Your task to perform on an android device: allow cookies in the chrome app Image 0: 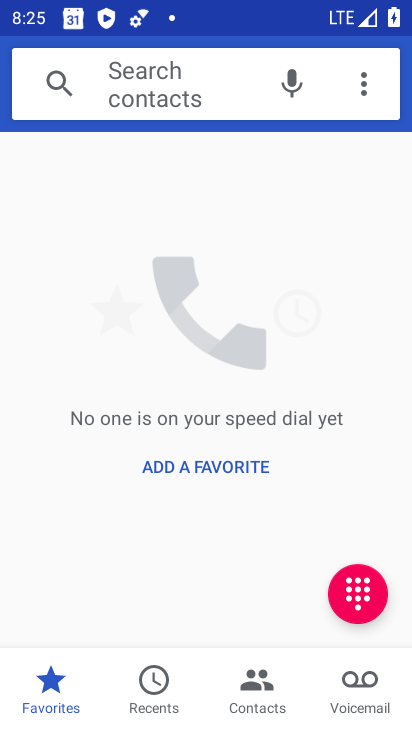
Step 0: press home button
Your task to perform on an android device: allow cookies in the chrome app Image 1: 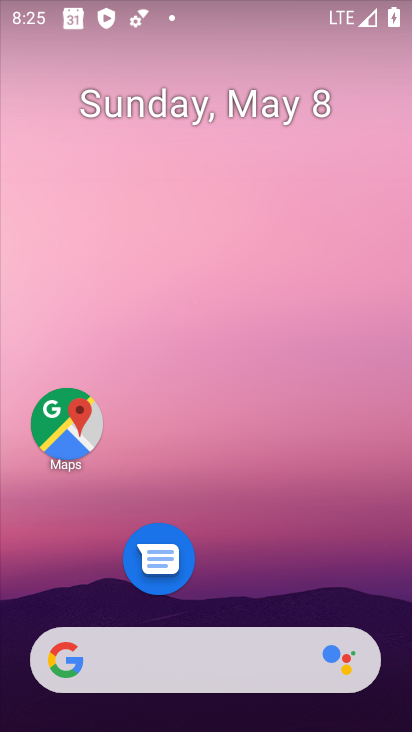
Step 1: drag from (260, 718) to (200, 131)
Your task to perform on an android device: allow cookies in the chrome app Image 2: 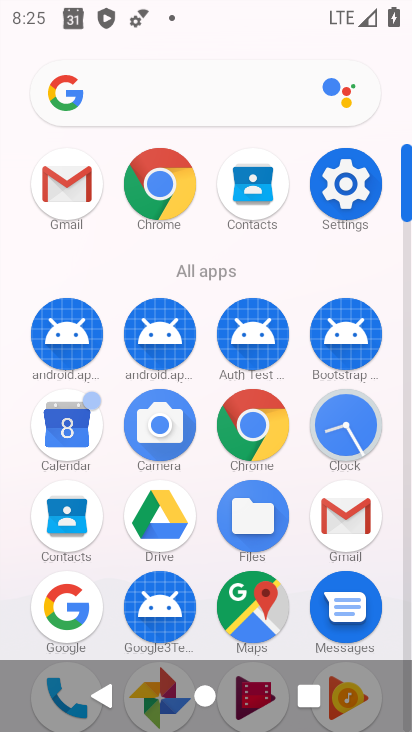
Step 2: click (263, 425)
Your task to perform on an android device: allow cookies in the chrome app Image 3: 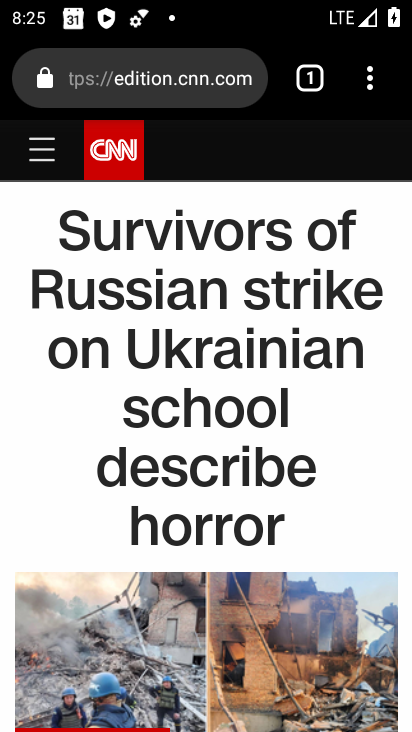
Step 3: drag from (367, 80) to (190, 624)
Your task to perform on an android device: allow cookies in the chrome app Image 4: 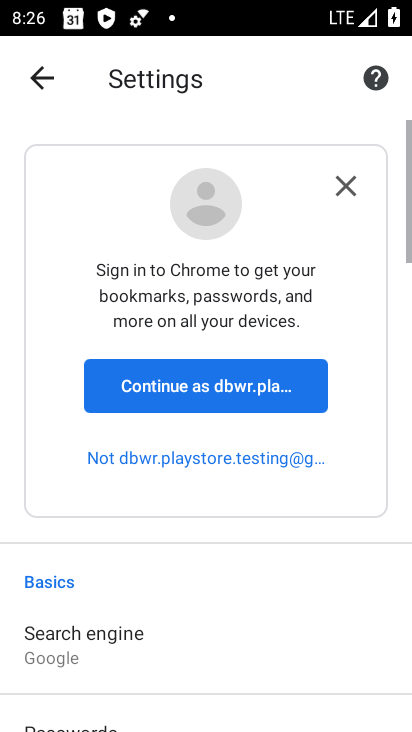
Step 4: drag from (190, 624) to (163, 159)
Your task to perform on an android device: allow cookies in the chrome app Image 5: 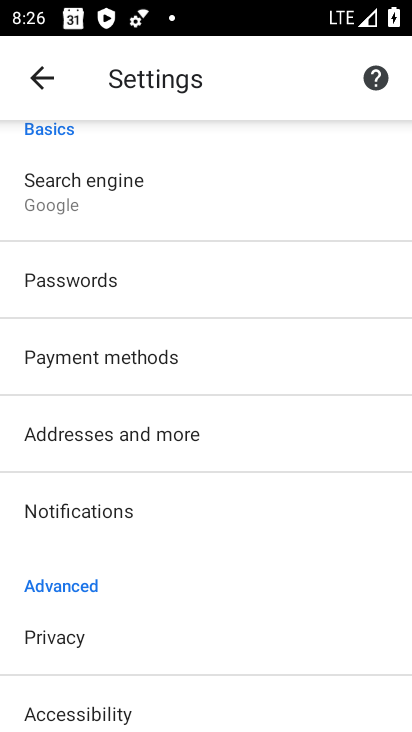
Step 5: drag from (189, 635) to (186, 154)
Your task to perform on an android device: allow cookies in the chrome app Image 6: 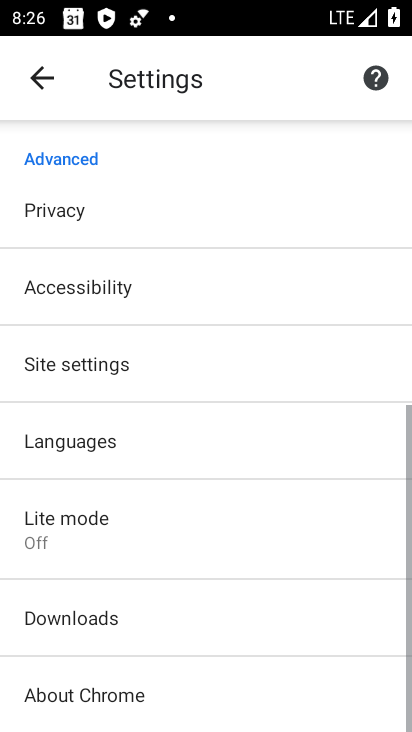
Step 6: click (142, 385)
Your task to perform on an android device: allow cookies in the chrome app Image 7: 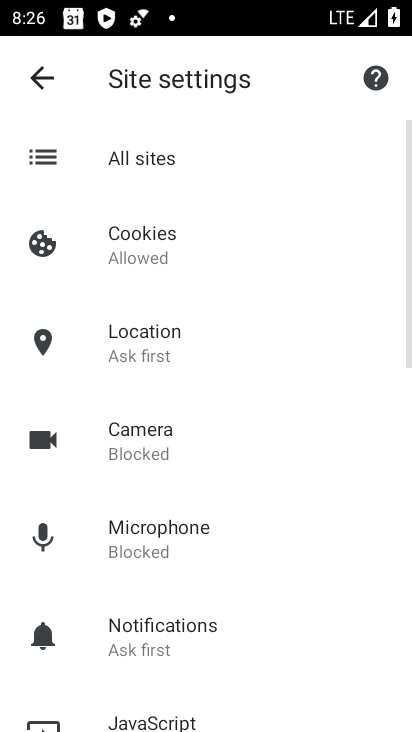
Step 7: click (182, 246)
Your task to perform on an android device: allow cookies in the chrome app Image 8: 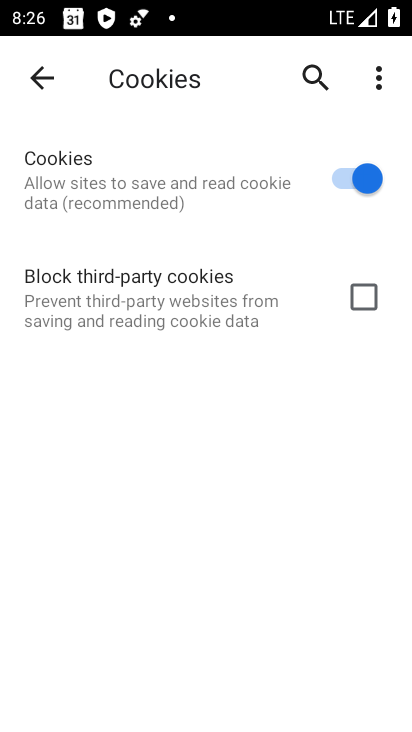
Step 8: task complete